Your task to perform on an android device: check google app version Image 0: 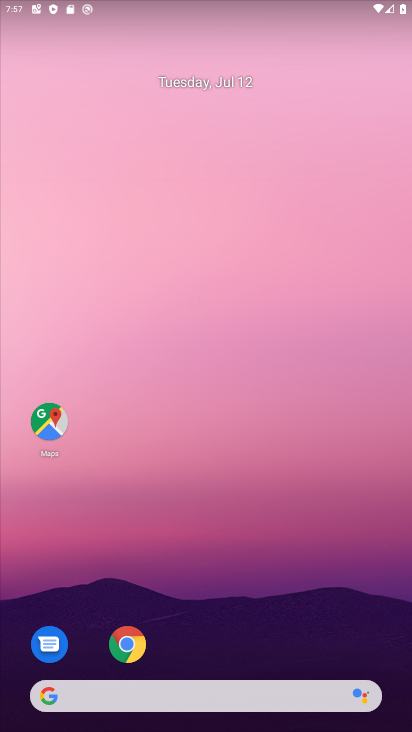
Step 0: drag from (223, 631) to (270, 97)
Your task to perform on an android device: check google app version Image 1: 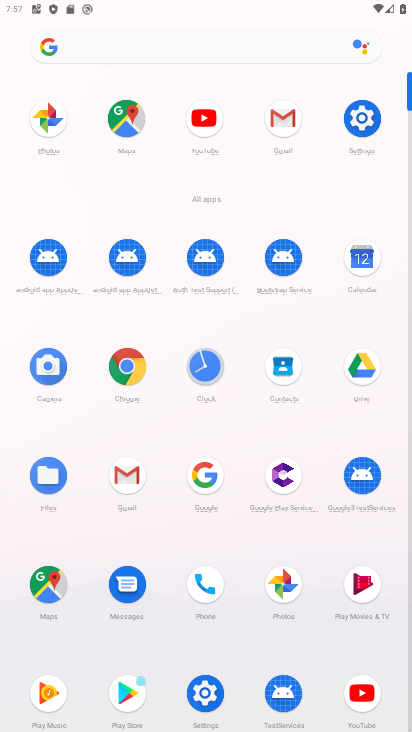
Step 1: drag from (207, 653) to (299, 156)
Your task to perform on an android device: check google app version Image 2: 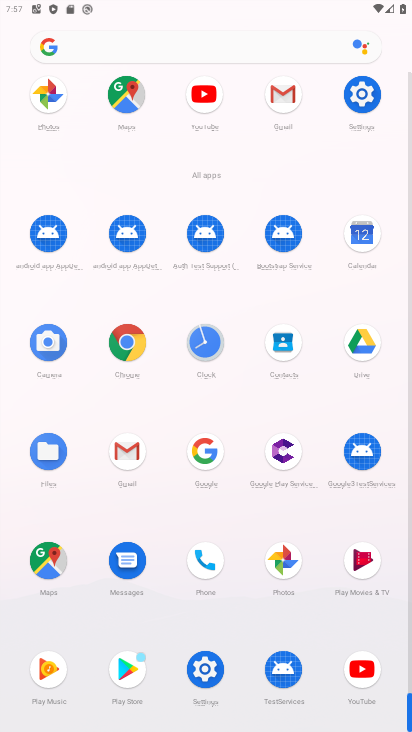
Step 2: click (208, 453)
Your task to perform on an android device: check google app version Image 3: 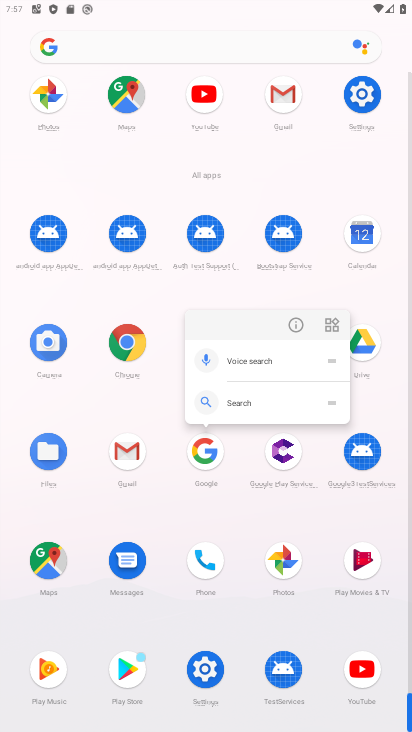
Step 3: click (296, 324)
Your task to perform on an android device: check google app version Image 4: 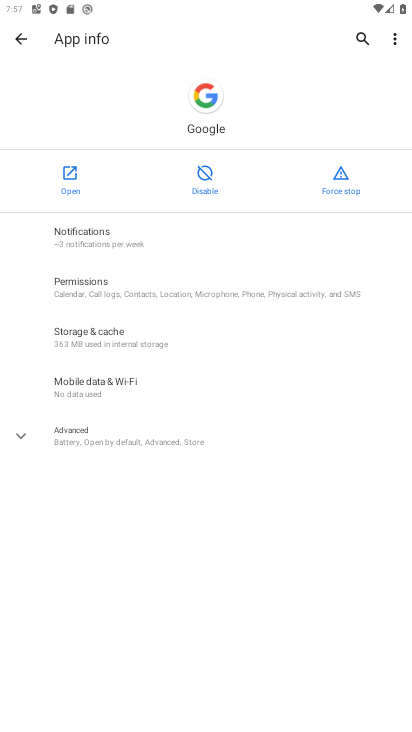
Step 4: click (57, 168)
Your task to perform on an android device: check google app version Image 5: 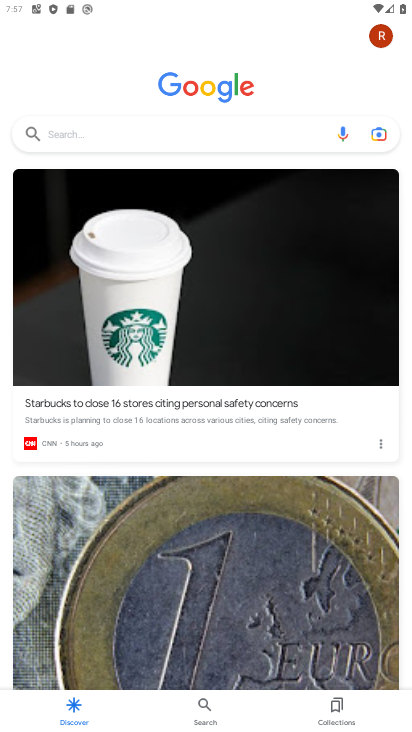
Step 5: click (57, 168)
Your task to perform on an android device: check google app version Image 6: 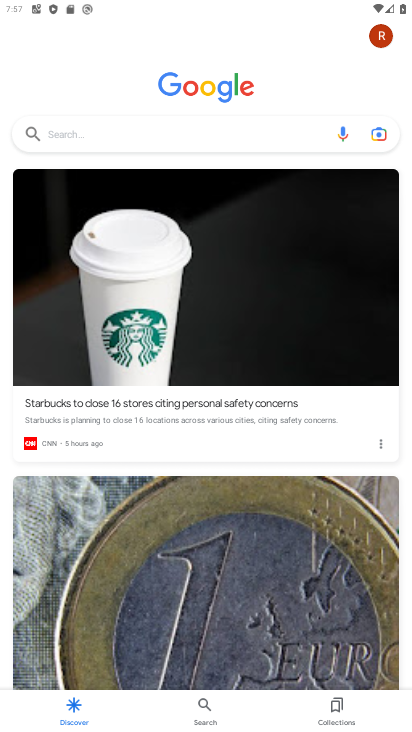
Step 6: click (373, 34)
Your task to perform on an android device: check google app version Image 7: 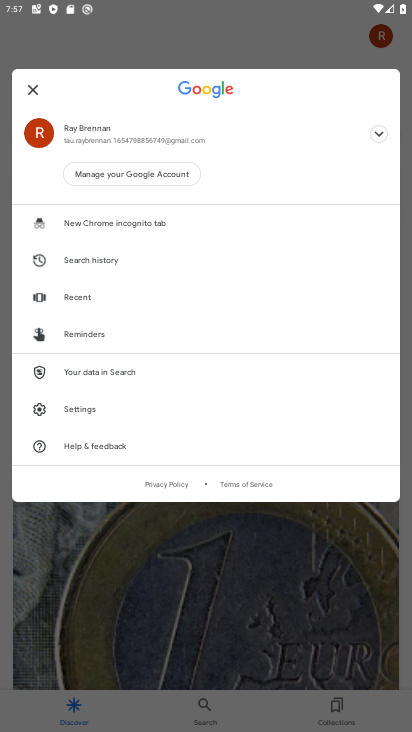
Step 7: click (384, 38)
Your task to perform on an android device: check google app version Image 8: 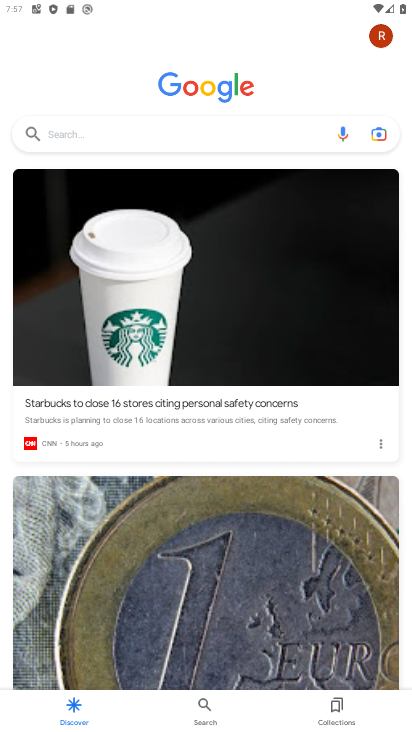
Step 8: click (384, 38)
Your task to perform on an android device: check google app version Image 9: 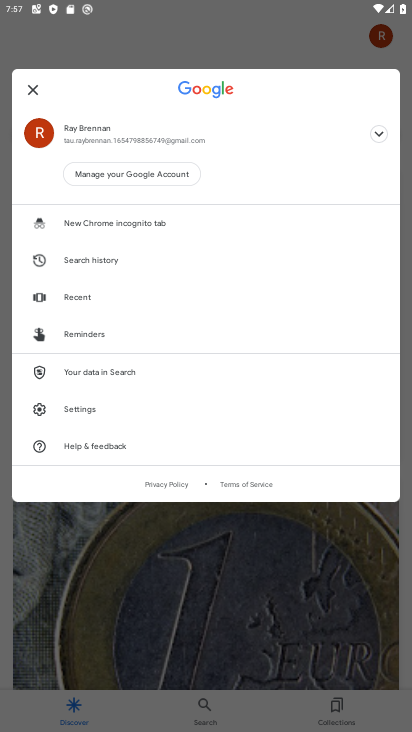
Step 9: click (110, 405)
Your task to perform on an android device: check google app version Image 10: 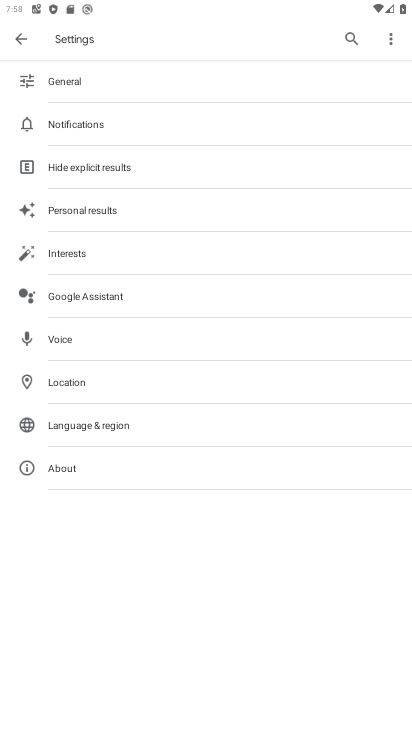
Step 10: drag from (169, 471) to (222, 96)
Your task to perform on an android device: check google app version Image 11: 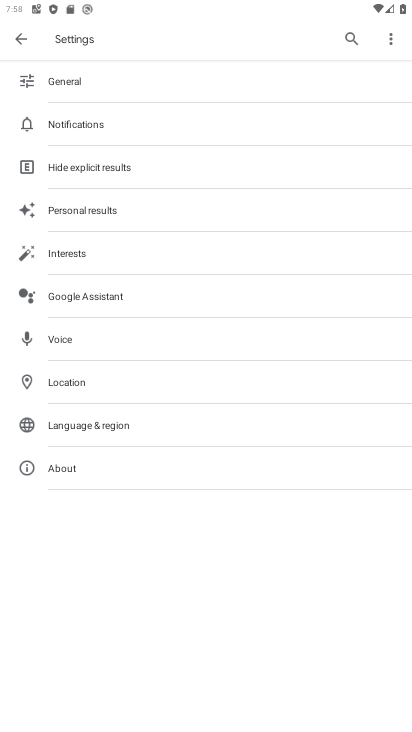
Step 11: click (101, 473)
Your task to perform on an android device: check google app version Image 12: 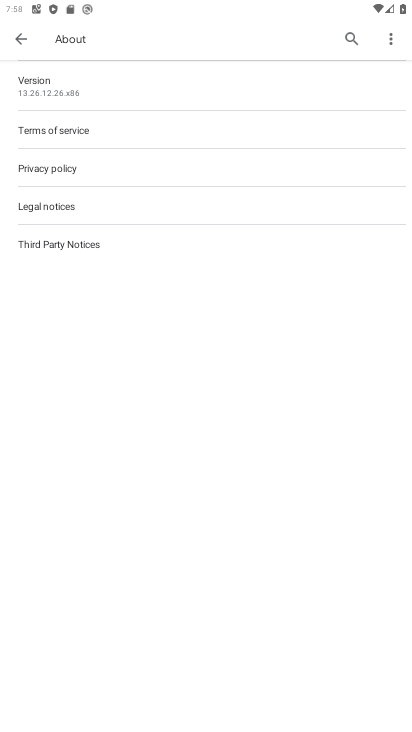
Step 12: click (111, 86)
Your task to perform on an android device: check google app version Image 13: 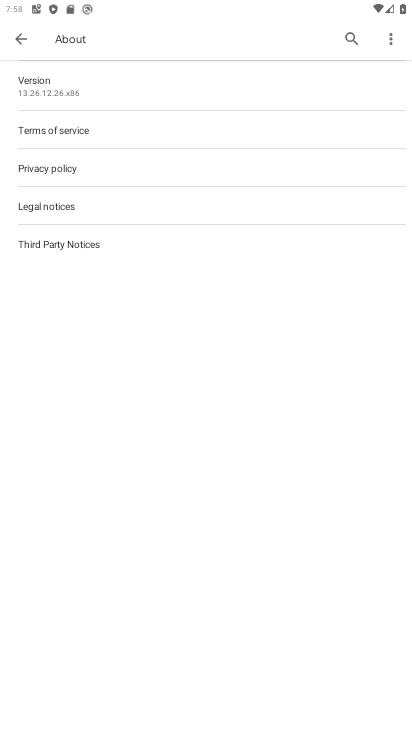
Step 13: task complete